Your task to perform on an android device: What's the weather going to be this weekend? Image 0: 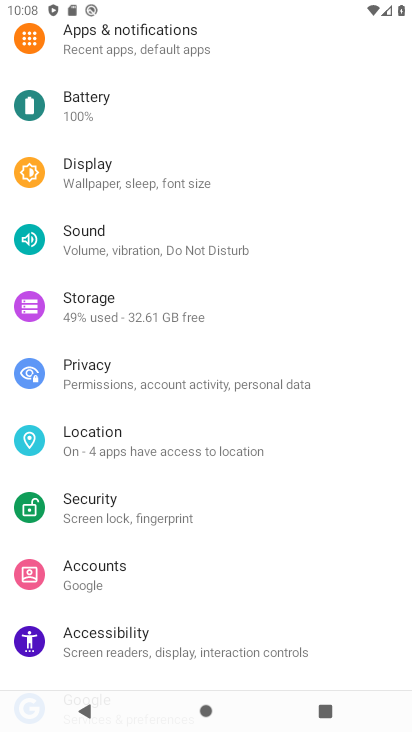
Step 0: press home button
Your task to perform on an android device: What's the weather going to be this weekend? Image 1: 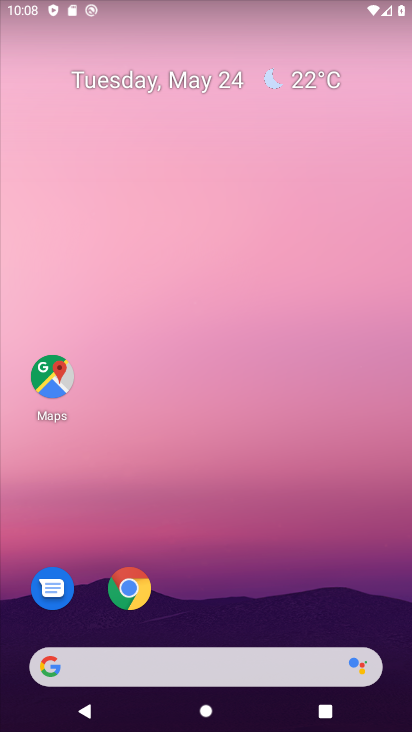
Step 1: click (199, 673)
Your task to perform on an android device: What's the weather going to be this weekend? Image 2: 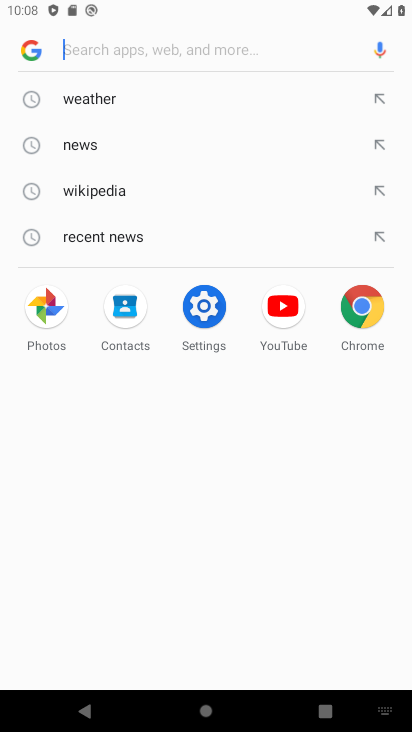
Step 2: click (229, 89)
Your task to perform on an android device: What's the weather going to be this weekend? Image 3: 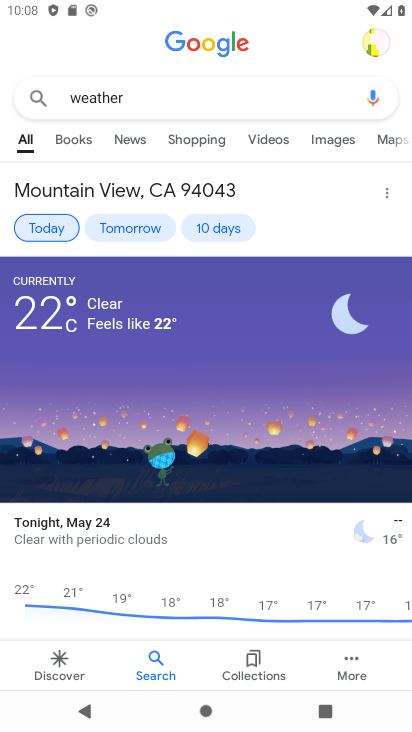
Step 3: task complete